Your task to perform on an android device: uninstall "LiveIn - Share Your Moment" Image 0: 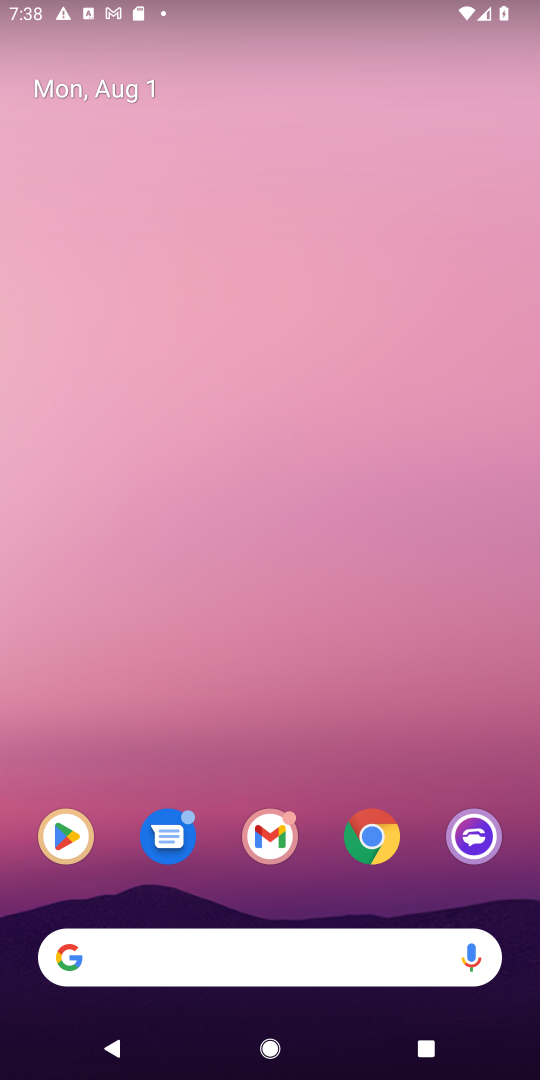
Step 0: click (56, 837)
Your task to perform on an android device: uninstall "LiveIn - Share Your Moment" Image 1: 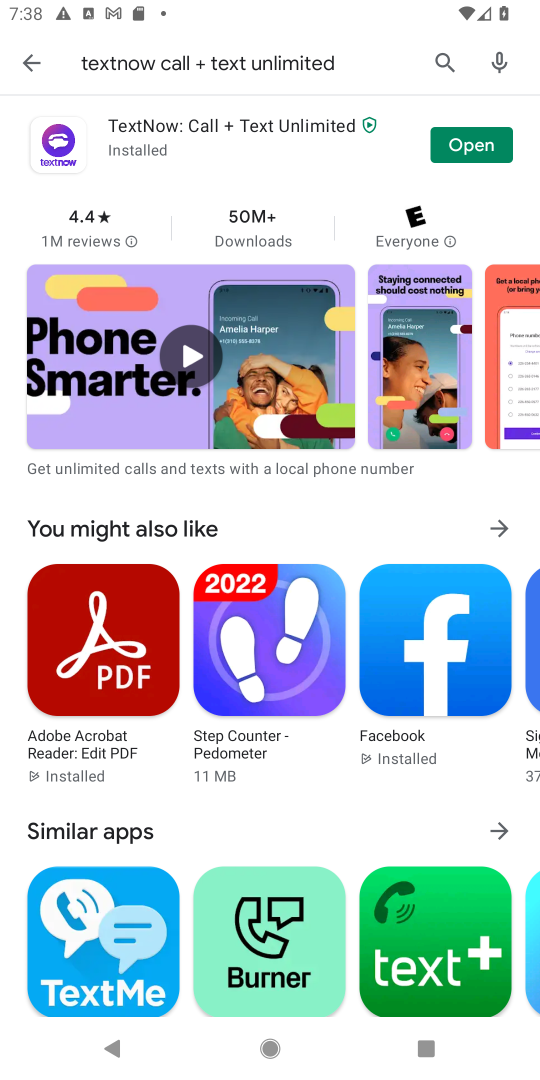
Step 1: click (438, 50)
Your task to perform on an android device: uninstall "LiveIn - Share Your Moment" Image 2: 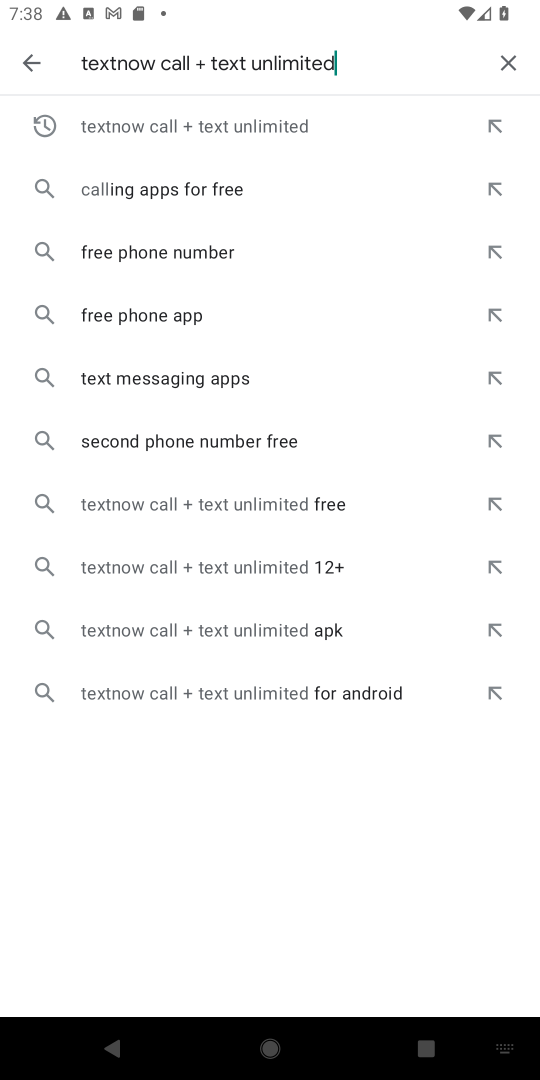
Step 2: click (510, 56)
Your task to perform on an android device: uninstall "LiveIn - Share Your Moment" Image 3: 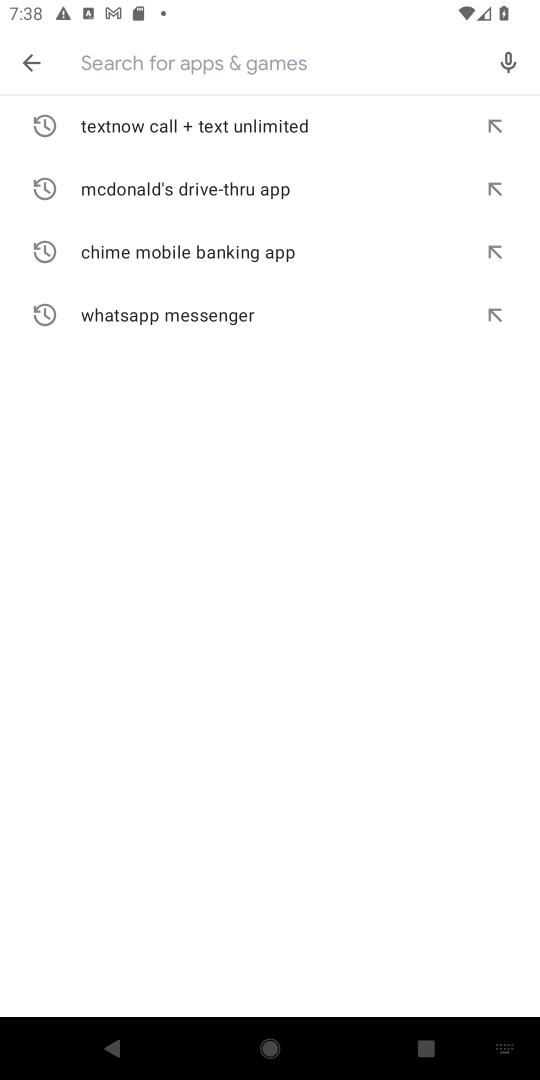
Step 3: type "LiveIn - Share Your Moment"
Your task to perform on an android device: uninstall "LiveIn - Share Your Moment" Image 4: 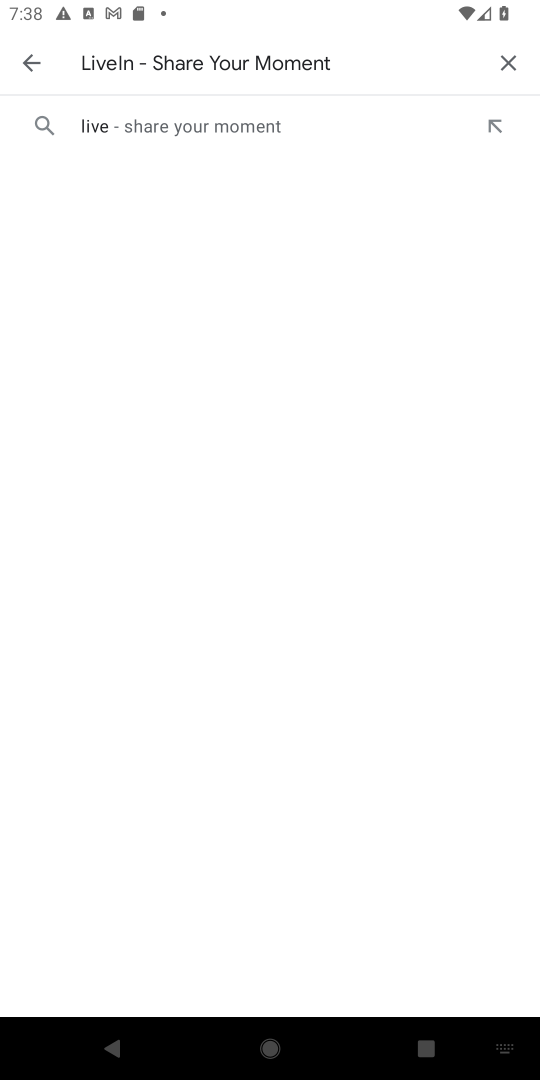
Step 4: click (168, 123)
Your task to perform on an android device: uninstall "LiveIn - Share Your Moment" Image 5: 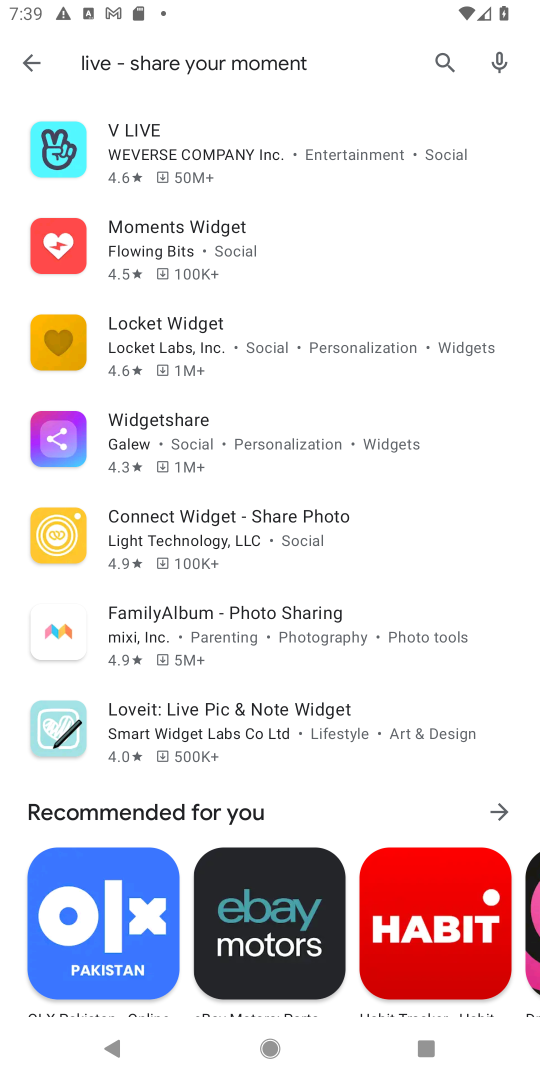
Step 5: task complete